Your task to perform on an android device: remove spam from my inbox in the gmail app Image 0: 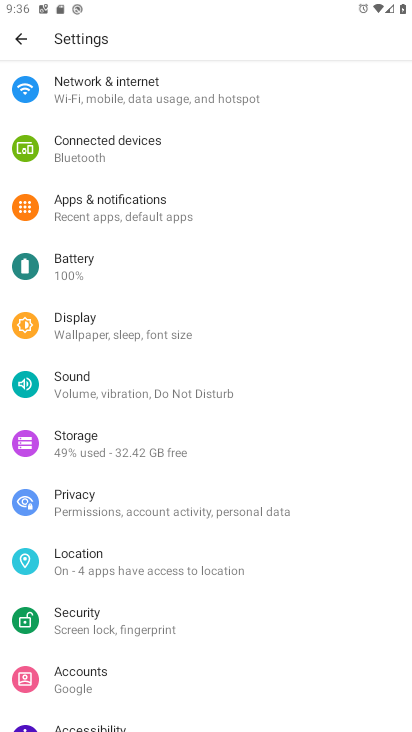
Step 0: press home button
Your task to perform on an android device: remove spam from my inbox in the gmail app Image 1: 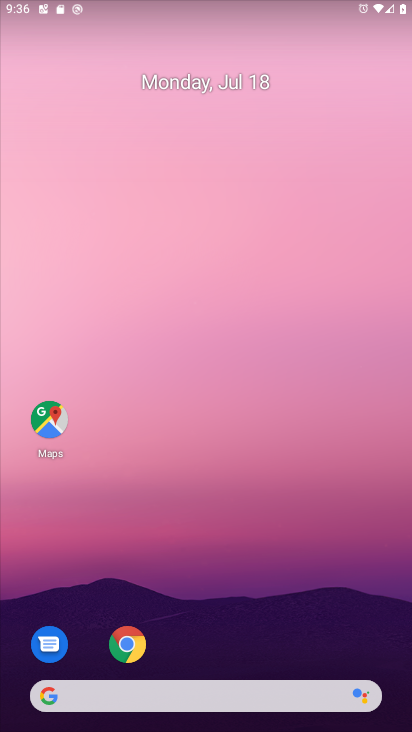
Step 1: drag from (234, 662) to (186, 142)
Your task to perform on an android device: remove spam from my inbox in the gmail app Image 2: 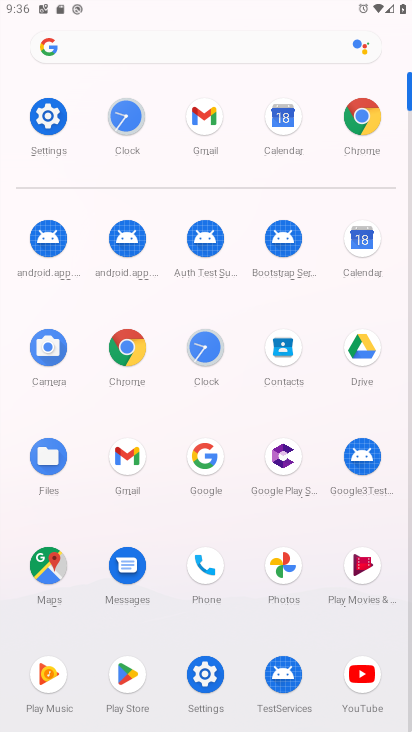
Step 2: click (119, 450)
Your task to perform on an android device: remove spam from my inbox in the gmail app Image 3: 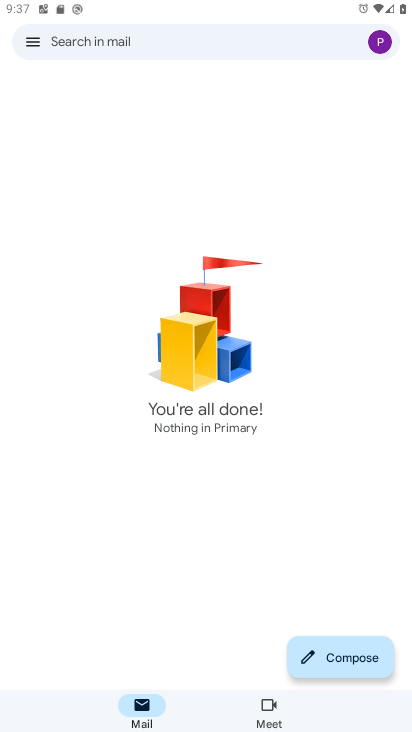
Step 3: task complete